Your task to perform on an android device: turn off smart reply in the gmail app Image 0: 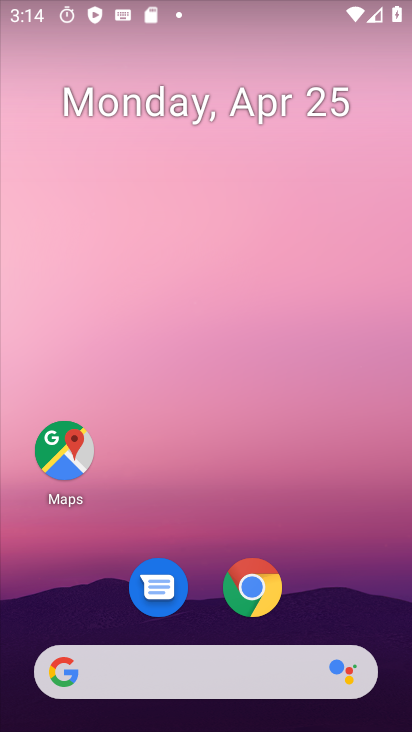
Step 0: drag from (281, 302) to (295, 165)
Your task to perform on an android device: turn off smart reply in the gmail app Image 1: 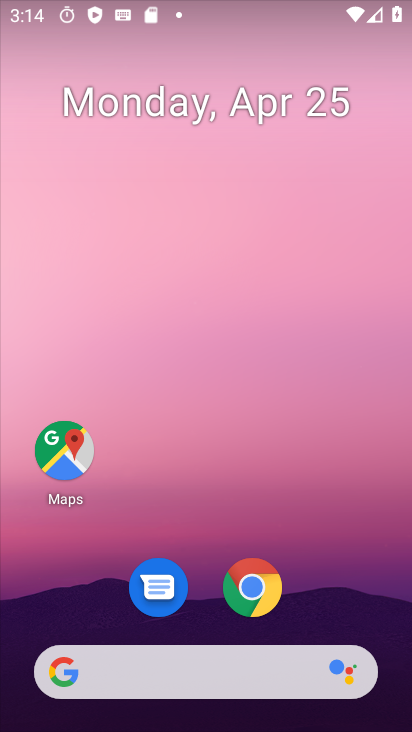
Step 1: drag from (298, 550) to (275, 152)
Your task to perform on an android device: turn off smart reply in the gmail app Image 2: 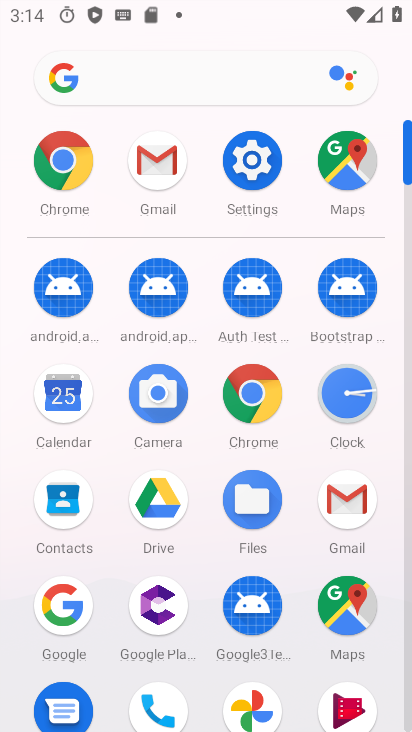
Step 2: click (354, 516)
Your task to perform on an android device: turn off smart reply in the gmail app Image 3: 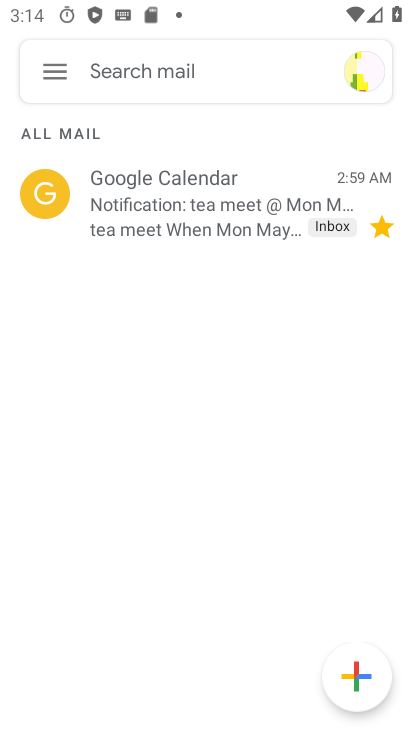
Step 3: click (54, 61)
Your task to perform on an android device: turn off smart reply in the gmail app Image 4: 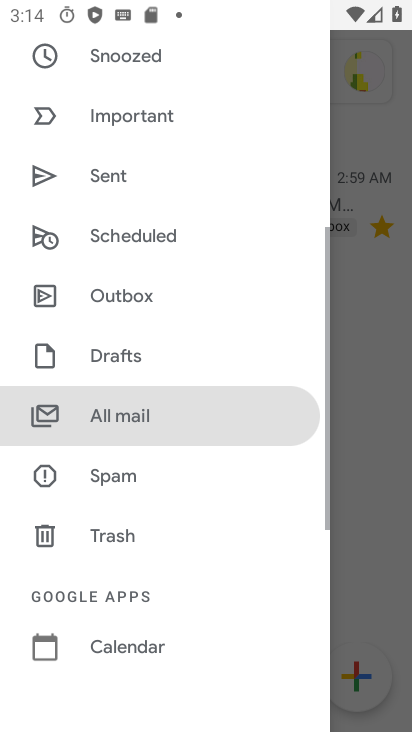
Step 4: drag from (183, 495) to (252, 72)
Your task to perform on an android device: turn off smart reply in the gmail app Image 5: 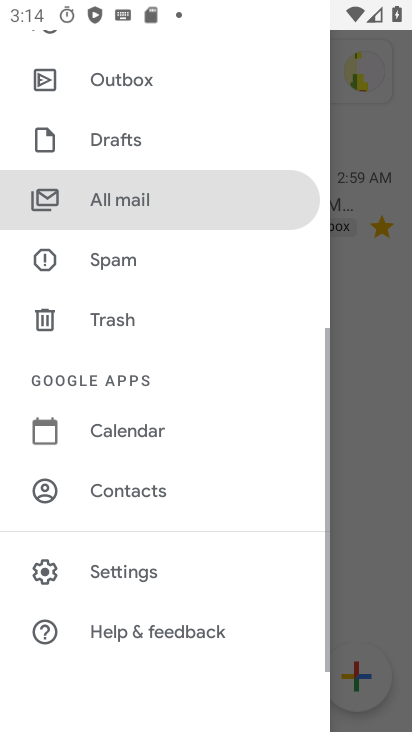
Step 5: click (126, 580)
Your task to perform on an android device: turn off smart reply in the gmail app Image 6: 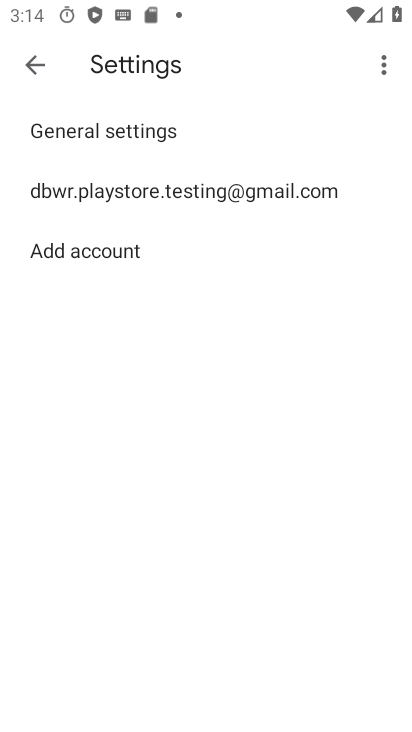
Step 6: click (212, 199)
Your task to perform on an android device: turn off smart reply in the gmail app Image 7: 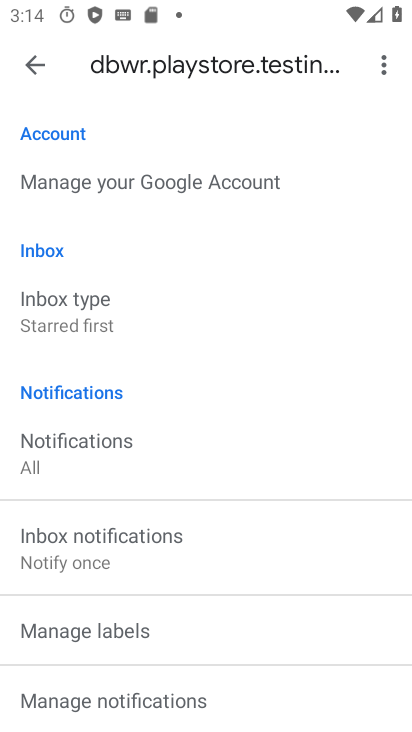
Step 7: drag from (221, 480) to (282, 197)
Your task to perform on an android device: turn off smart reply in the gmail app Image 8: 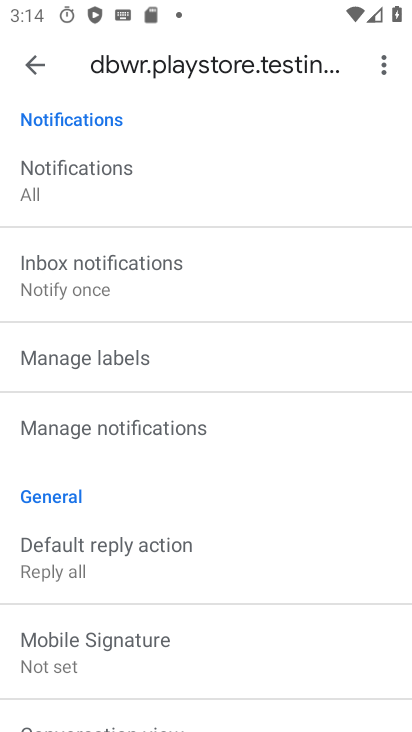
Step 8: drag from (166, 589) to (339, 207)
Your task to perform on an android device: turn off smart reply in the gmail app Image 9: 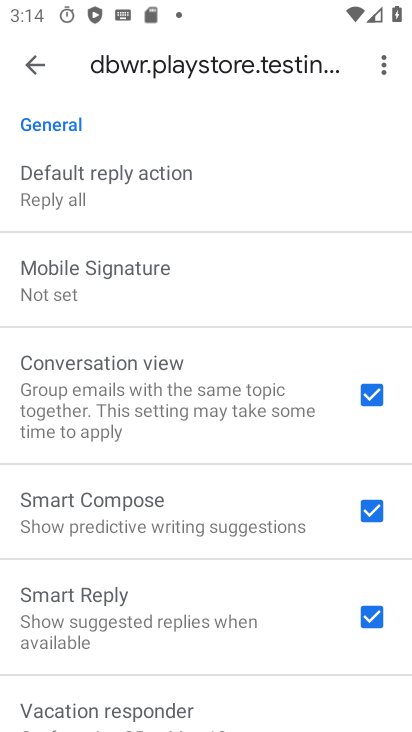
Step 9: click (373, 613)
Your task to perform on an android device: turn off smart reply in the gmail app Image 10: 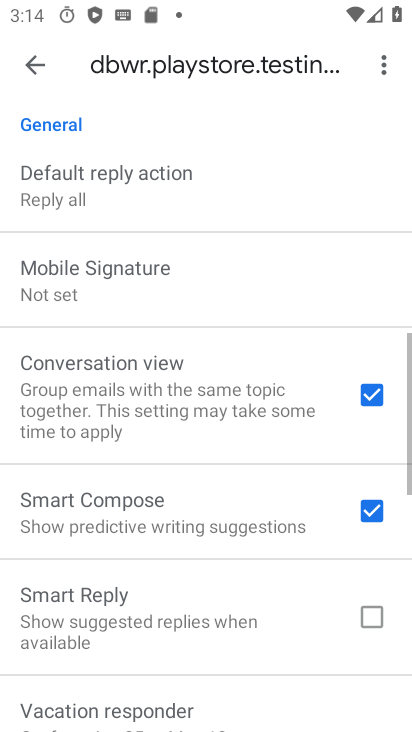
Step 10: task complete